Your task to perform on an android device: Go to Google maps Image 0: 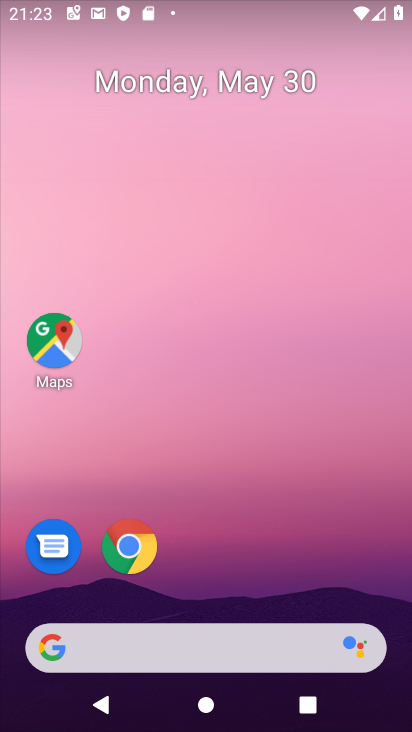
Step 0: drag from (327, 577) to (298, 169)
Your task to perform on an android device: Go to Google maps Image 1: 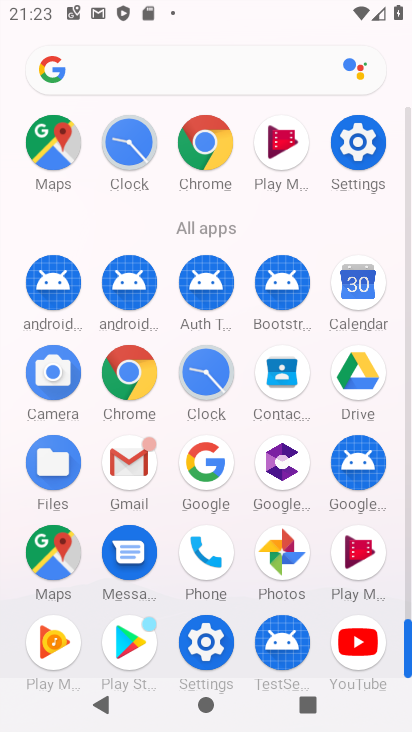
Step 1: click (43, 566)
Your task to perform on an android device: Go to Google maps Image 2: 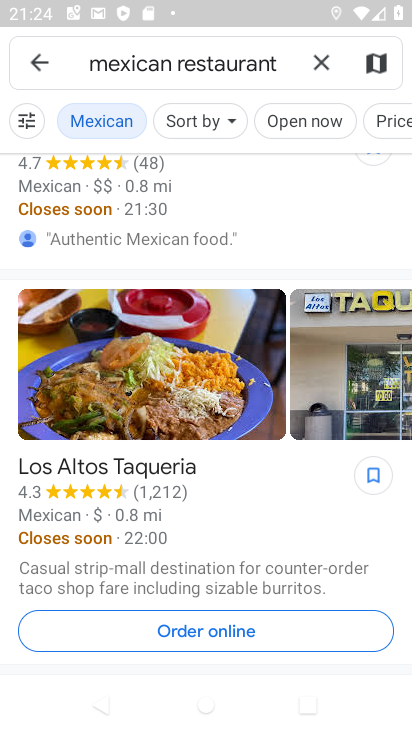
Step 2: task complete